Your task to perform on an android device: Open internet settings Image 0: 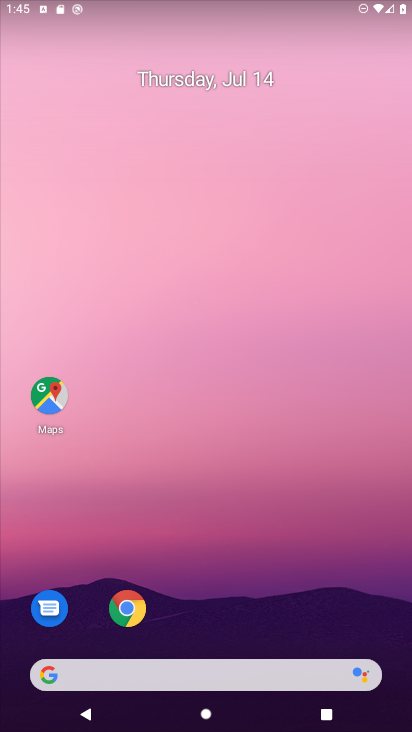
Step 0: drag from (369, 634) to (323, 126)
Your task to perform on an android device: Open internet settings Image 1: 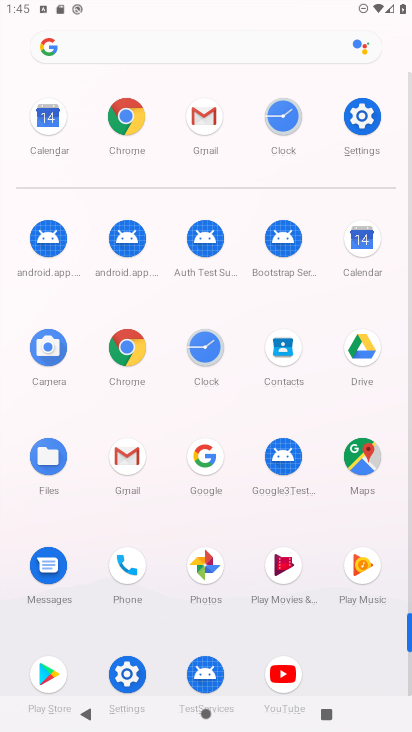
Step 1: click (127, 675)
Your task to perform on an android device: Open internet settings Image 2: 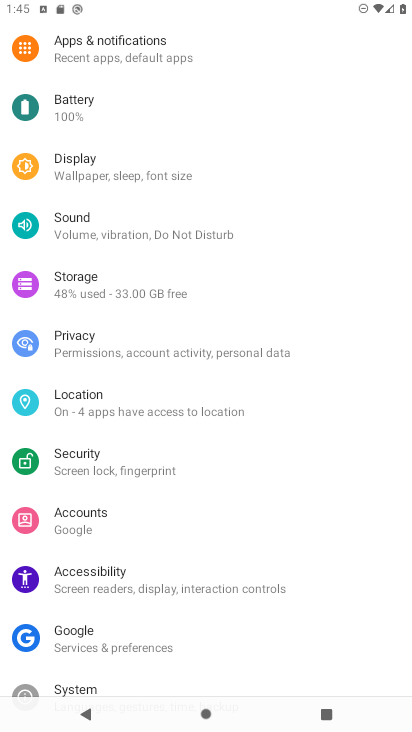
Step 2: drag from (307, 124) to (283, 401)
Your task to perform on an android device: Open internet settings Image 3: 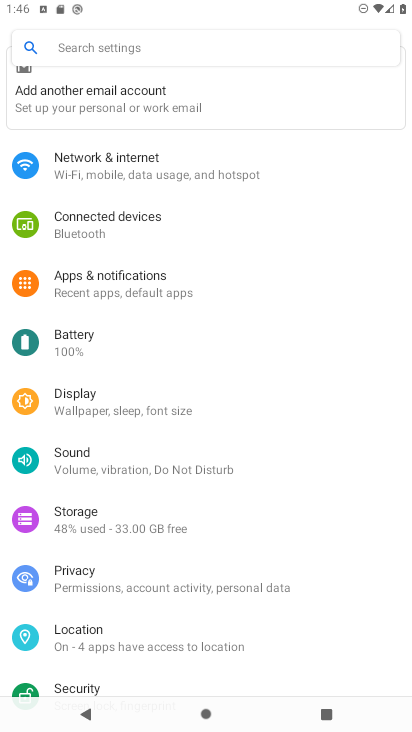
Step 3: click (76, 157)
Your task to perform on an android device: Open internet settings Image 4: 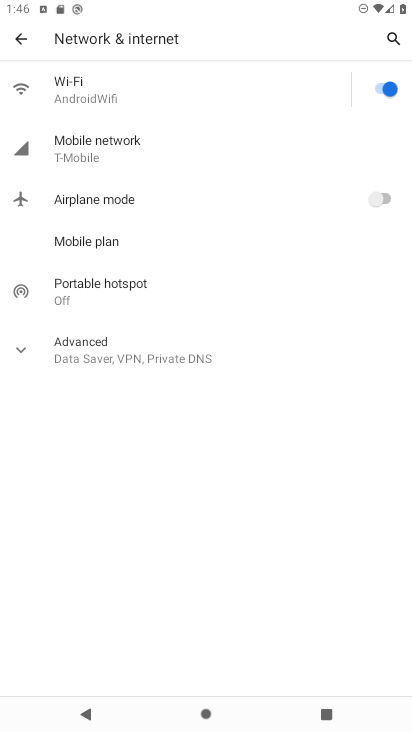
Step 4: click (69, 89)
Your task to perform on an android device: Open internet settings Image 5: 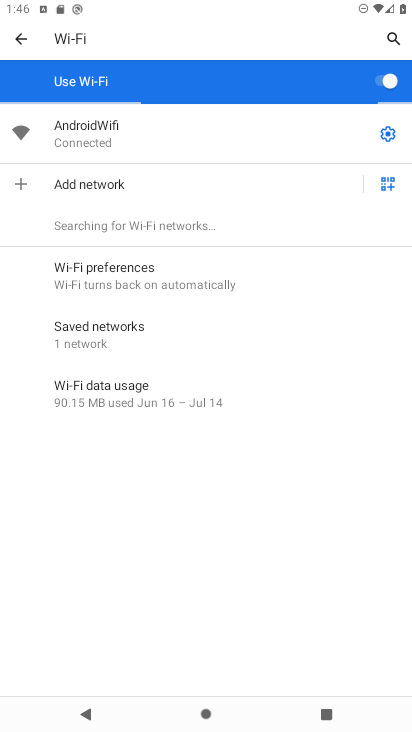
Step 5: click (391, 133)
Your task to perform on an android device: Open internet settings Image 6: 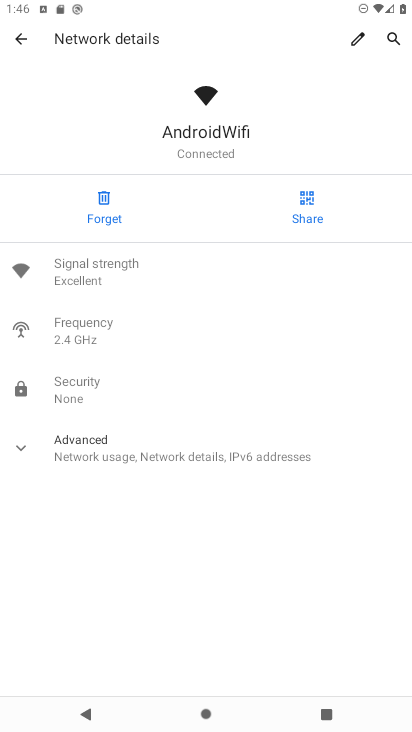
Step 6: click (16, 447)
Your task to perform on an android device: Open internet settings Image 7: 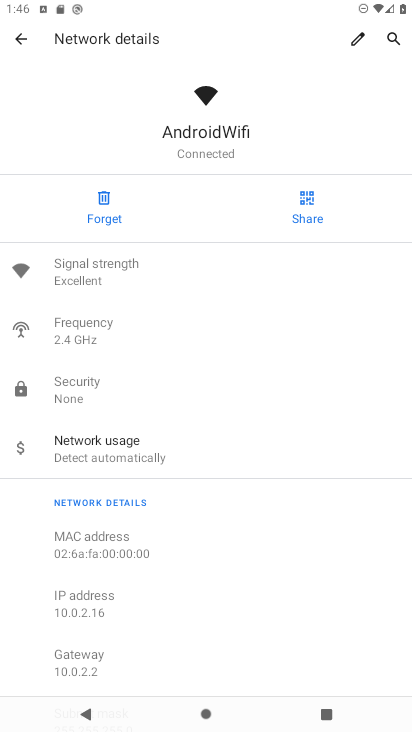
Step 7: task complete